Your task to perform on an android device: turn on priority inbox in the gmail app Image 0: 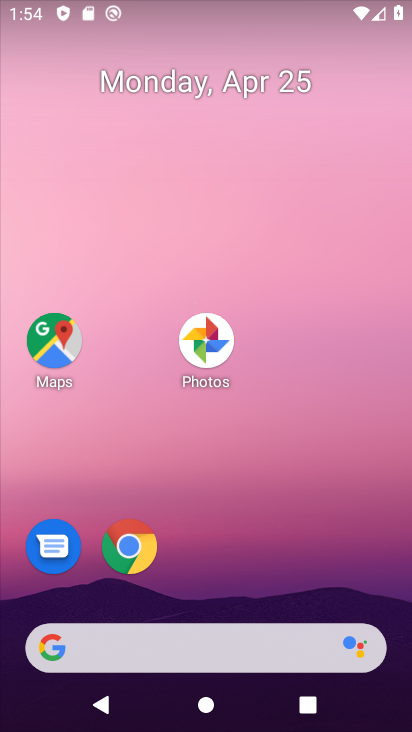
Step 0: drag from (324, 546) to (390, 140)
Your task to perform on an android device: turn on priority inbox in the gmail app Image 1: 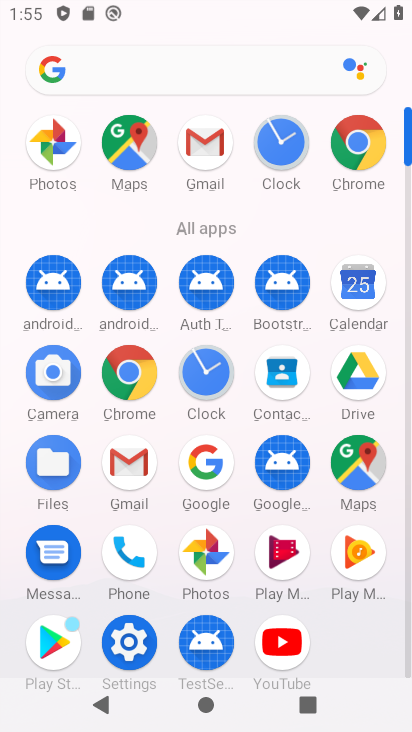
Step 1: click (203, 145)
Your task to perform on an android device: turn on priority inbox in the gmail app Image 2: 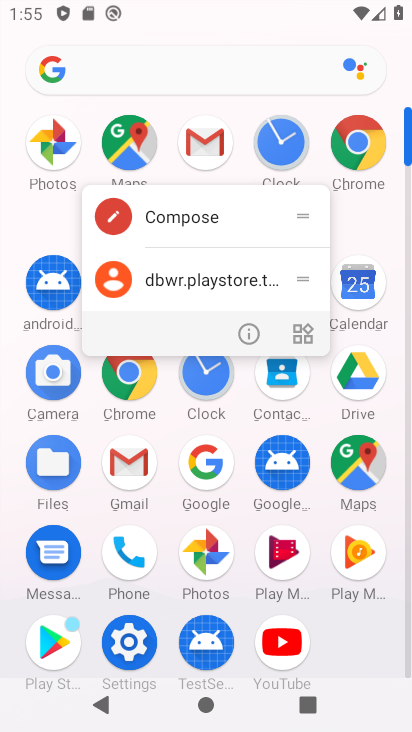
Step 2: click (134, 450)
Your task to perform on an android device: turn on priority inbox in the gmail app Image 3: 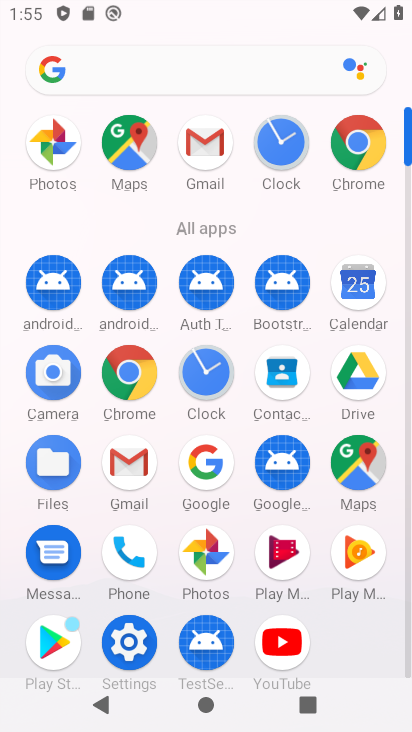
Step 3: click (134, 467)
Your task to perform on an android device: turn on priority inbox in the gmail app Image 4: 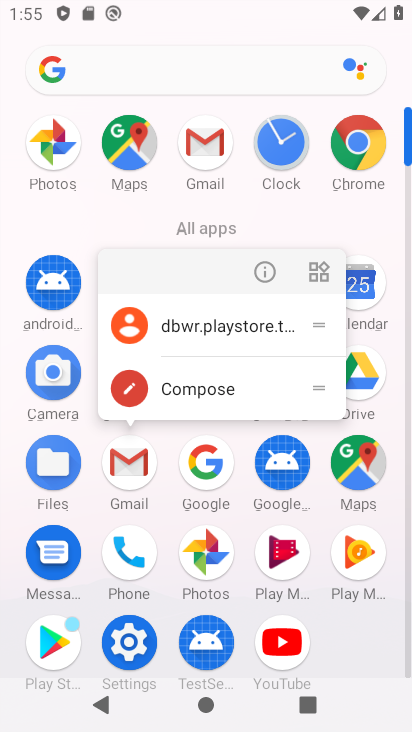
Step 4: click (134, 467)
Your task to perform on an android device: turn on priority inbox in the gmail app Image 5: 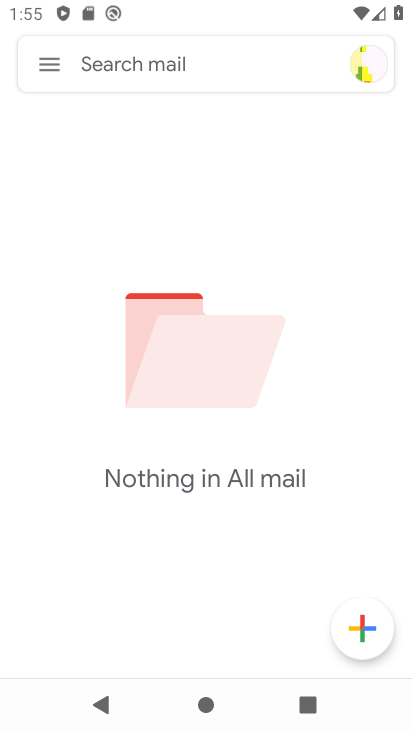
Step 5: click (53, 63)
Your task to perform on an android device: turn on priority inbox in the gmail app Image 6: 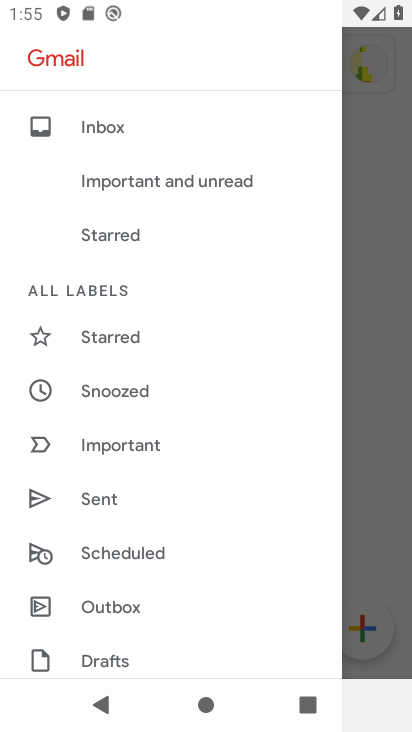
Step 6: drag from (143, 635) to (205, 305)
Your task to perform on an android device: turn on priority inbox in the gmail app Image 7: 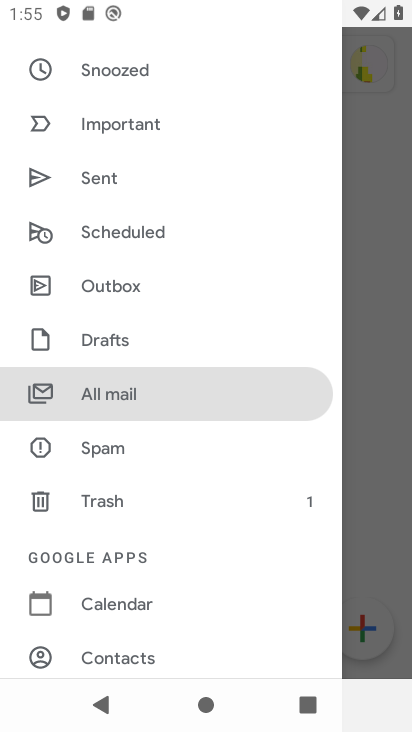
Step 7: drag from (135, 584) to (210, 224)
Your task to perform on an android device: turn on priority inbox in the gmail app Image 8: 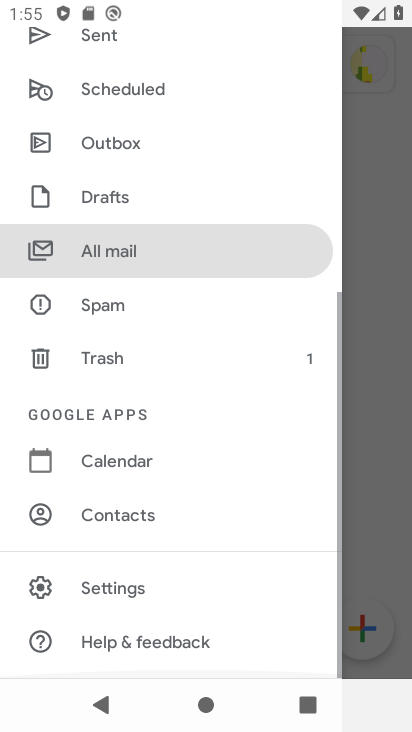
Step 8: click (115, 593)
Your task to perform on an android device: turn on priority inbox in the gmail app Image 9: 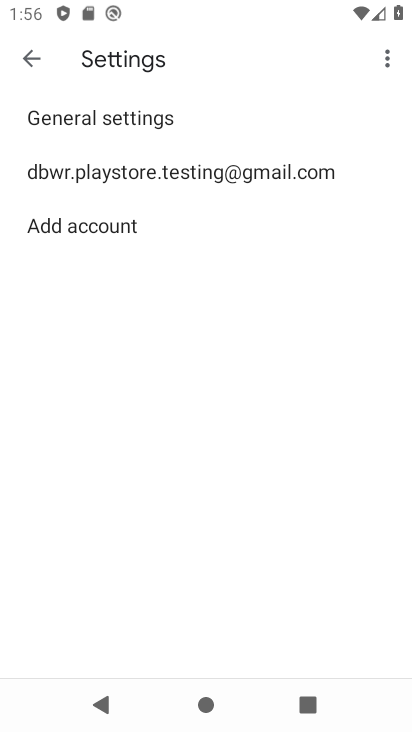
Step 9: click (205, 161)
Your task to perform on an android device: turn on priority inbox in the gmail app Image 10: 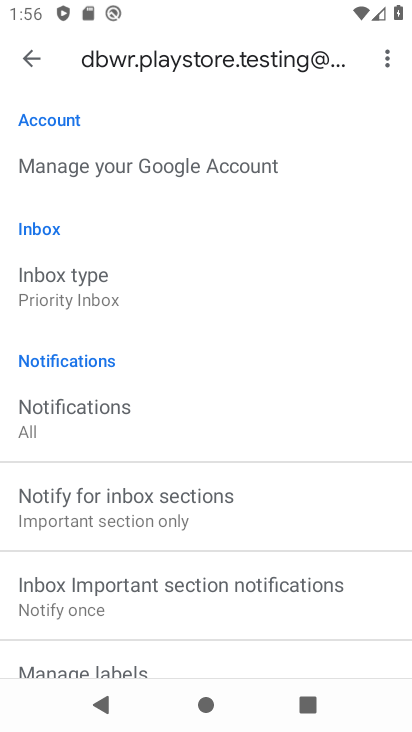
Step 10: click (156, 287)
Your task to perform on an android device: turn on priority inbox in the gmail app Image 11: 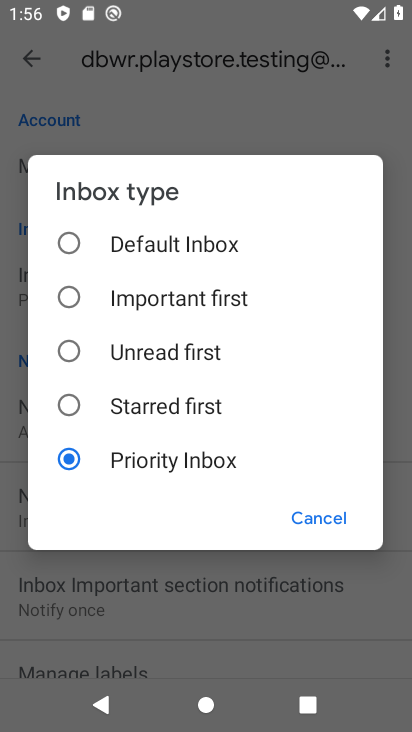
Step 11: task complete